Your task to perform on an android device: Show me popular games on the Play Store Image 0: 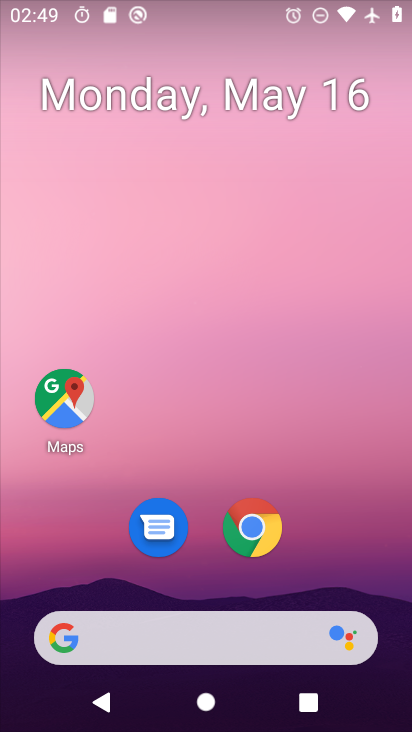
Step 0: drag from (238, 587) to (406, 200)
Your task to perform on an android device: Show me popular games on the Play Store Image 1: 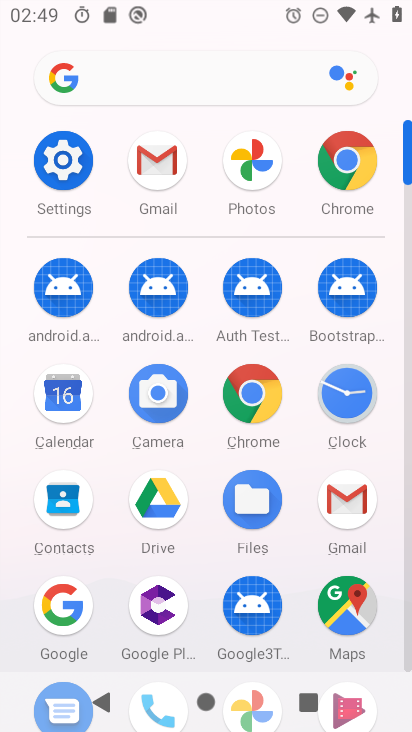
Step 1: drag from (183, 572) to (393, 172)
Your task to perform on an android device: Show me popular games on the Play Store Image 2: 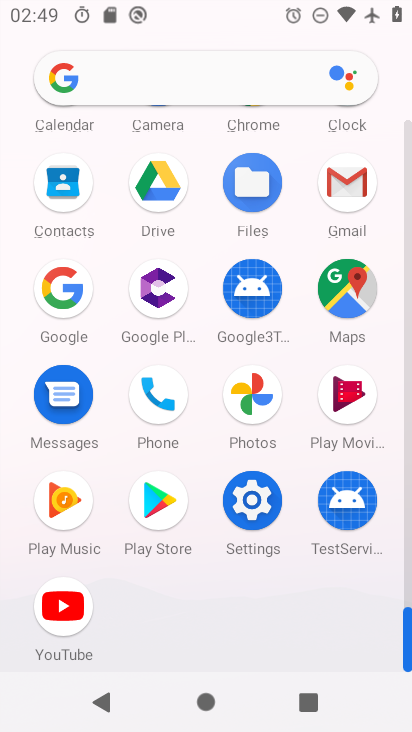
Step 2: click (163, 504)
Your task to perform on an android device: Show me popular games on the Play Store Image 3: 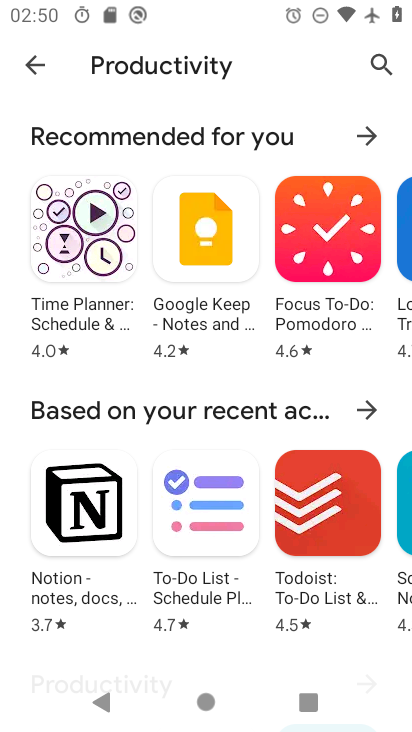
Step 3: click (45, 67)
Your task to perform on an android device: Show me popular games on the Play Store Image 4: 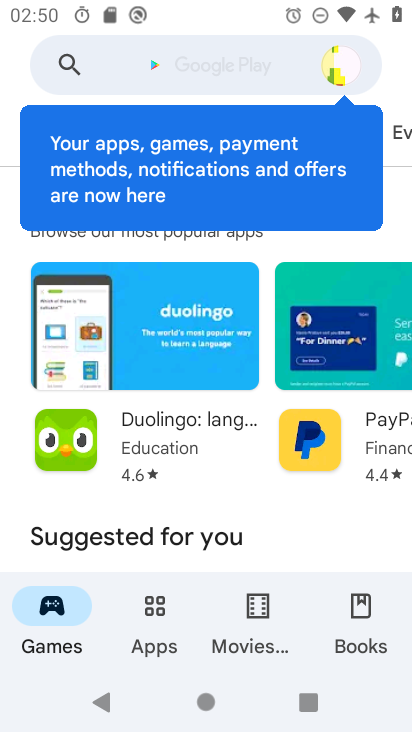
Step 4: click (41, 614)
Your task to perform on an android device: Show me popular games on the Play Store Image 5: 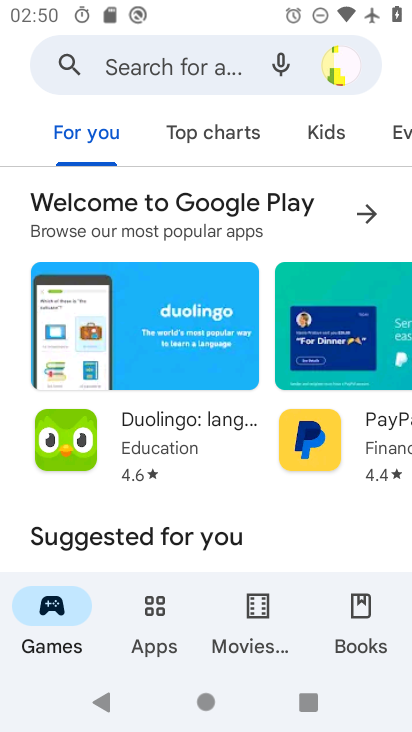
Step 5: drag from (187, 512) to (386, 73)
Your task to perform on an android device: Show me popular games on the Play Store Image 6: 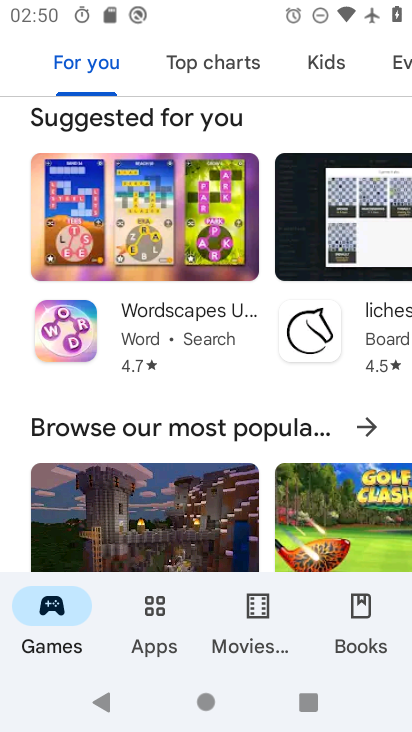
Step 6: click (261, 432)
Your task to perform on an android device: Show me popular games on the Play Store Image 7: 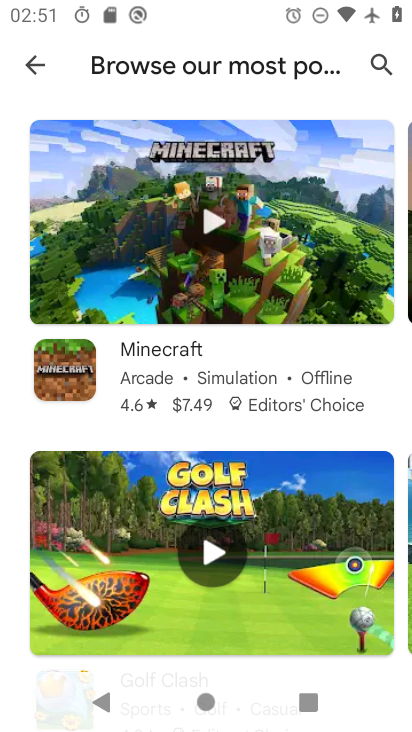
Step 7: task complete